Your task to perform on an android device: Play the last video I watched on Youtube Image 0: 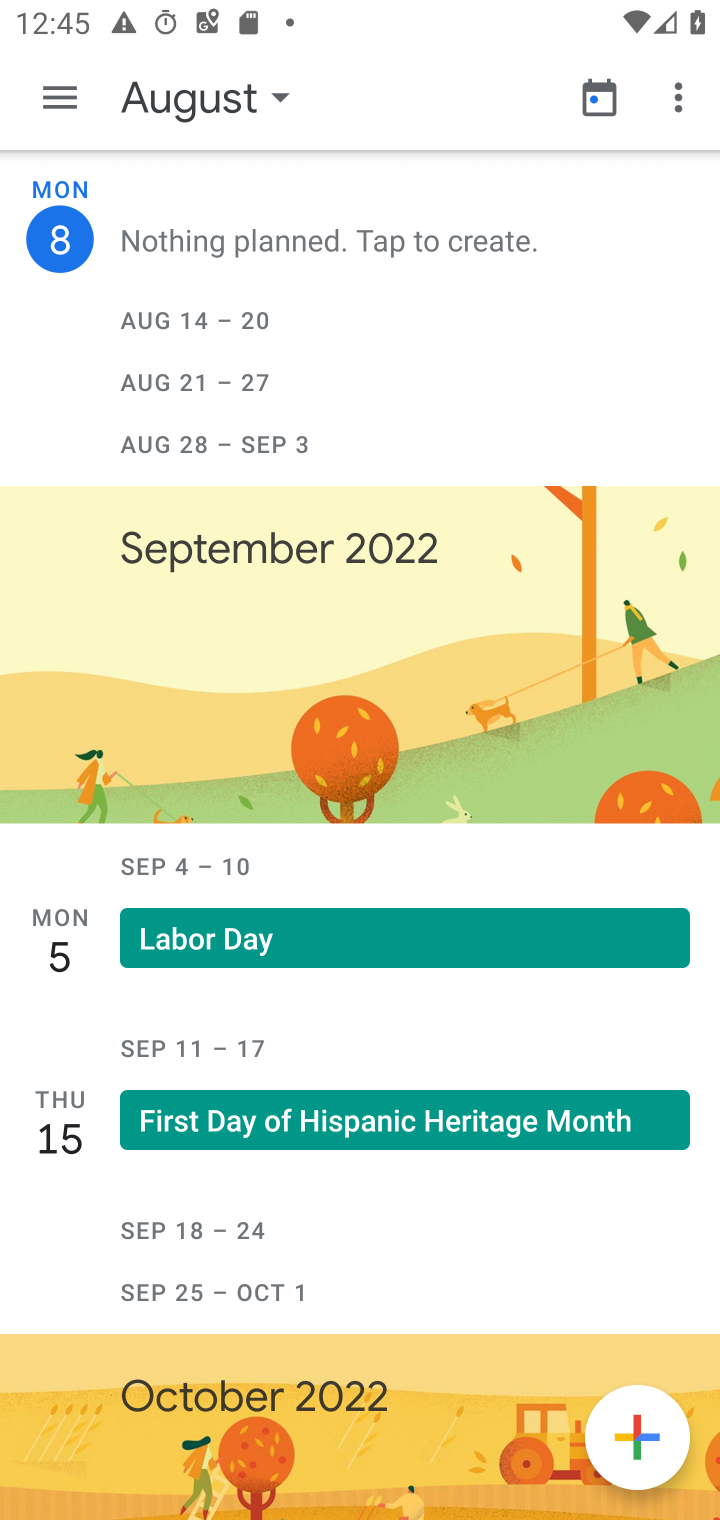
Step 0: press home button
Your task to perform on an android device: Play the last video I watched on Youtube Image 1: 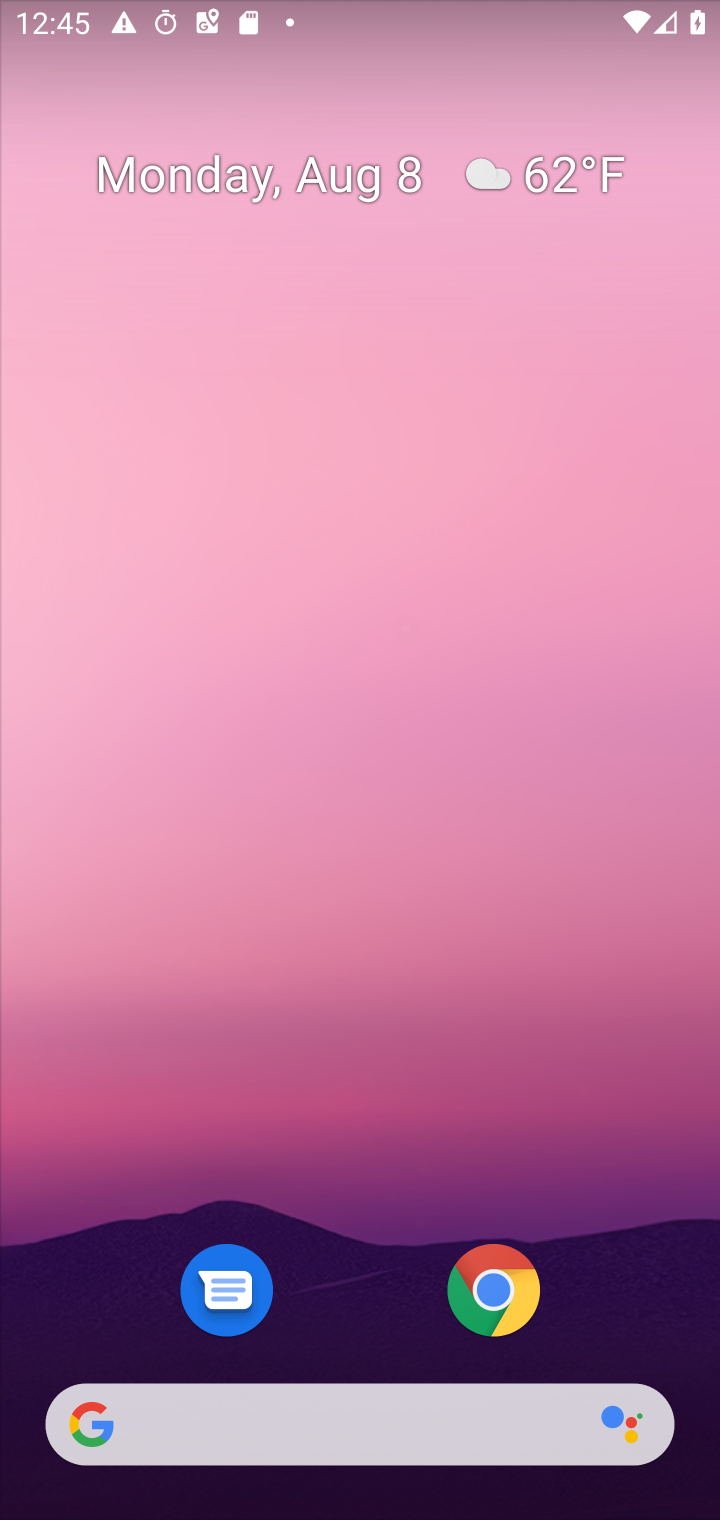
Step 1: drag from (392, 882) to (458, 204)
Your task to perform on an android device: Play the last video I watched on Youtube Image 2: 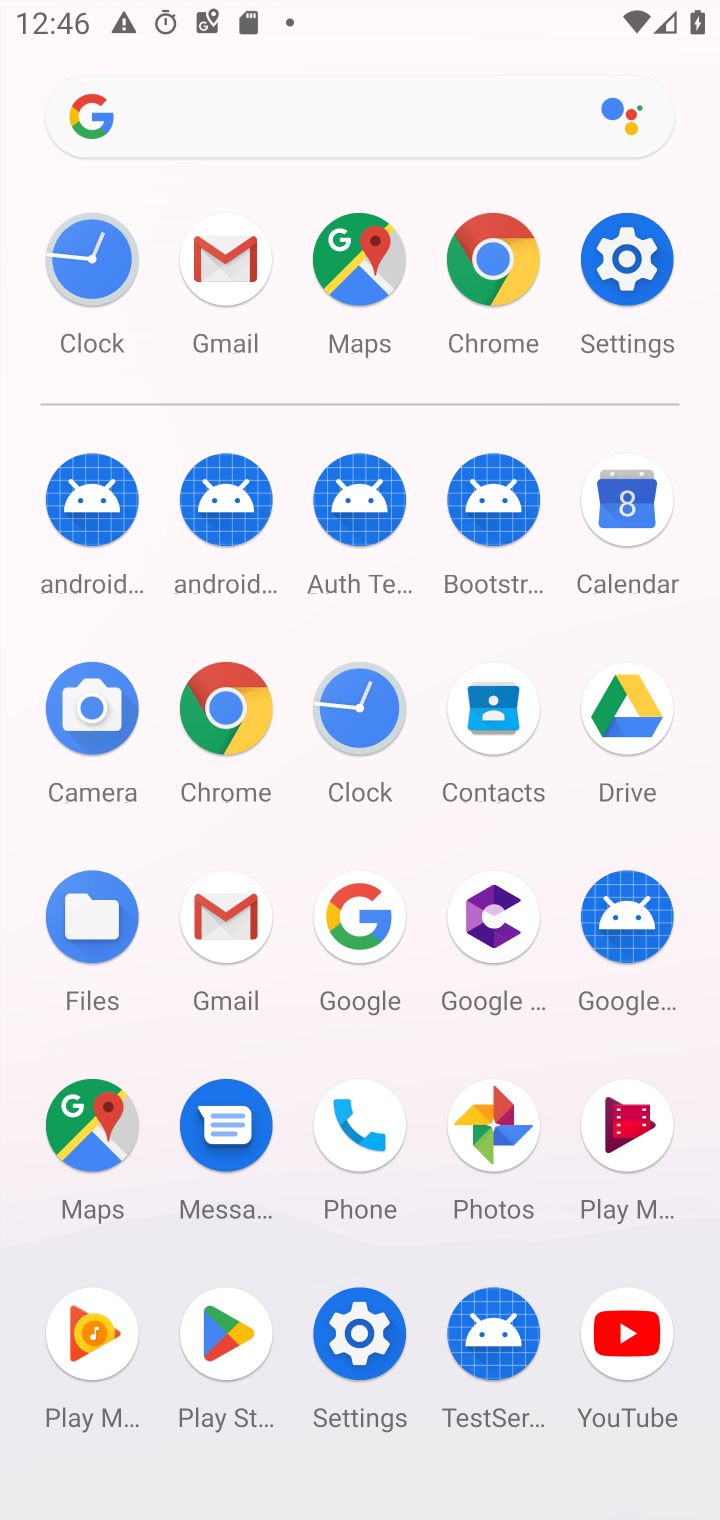
Step 2: click (615, 1334)
Your task to perform on an android device: Play the last video I watched on Youtube Image 3: 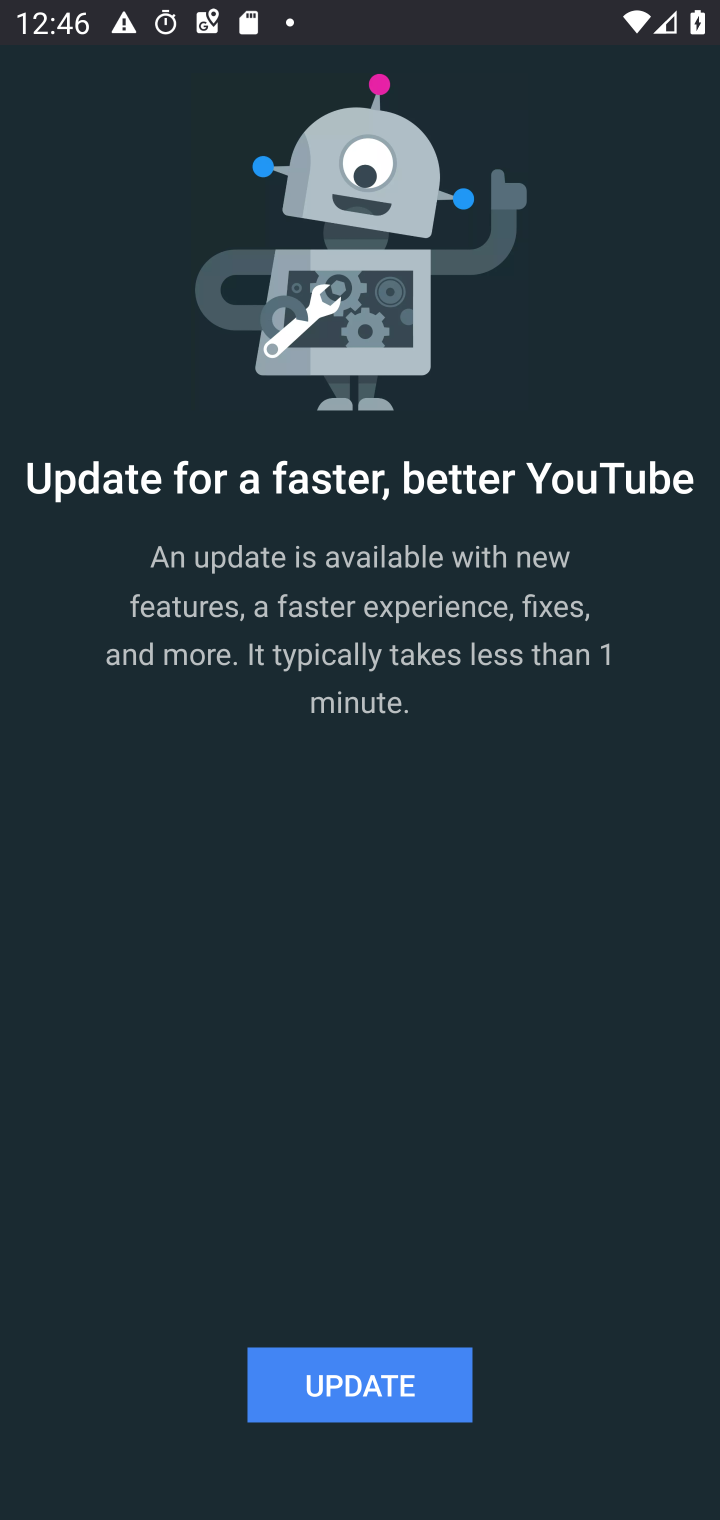
Step 3: click (407, 1353)
Your task to perform on an android device: Play the last video I watched on Youtube Image 4: 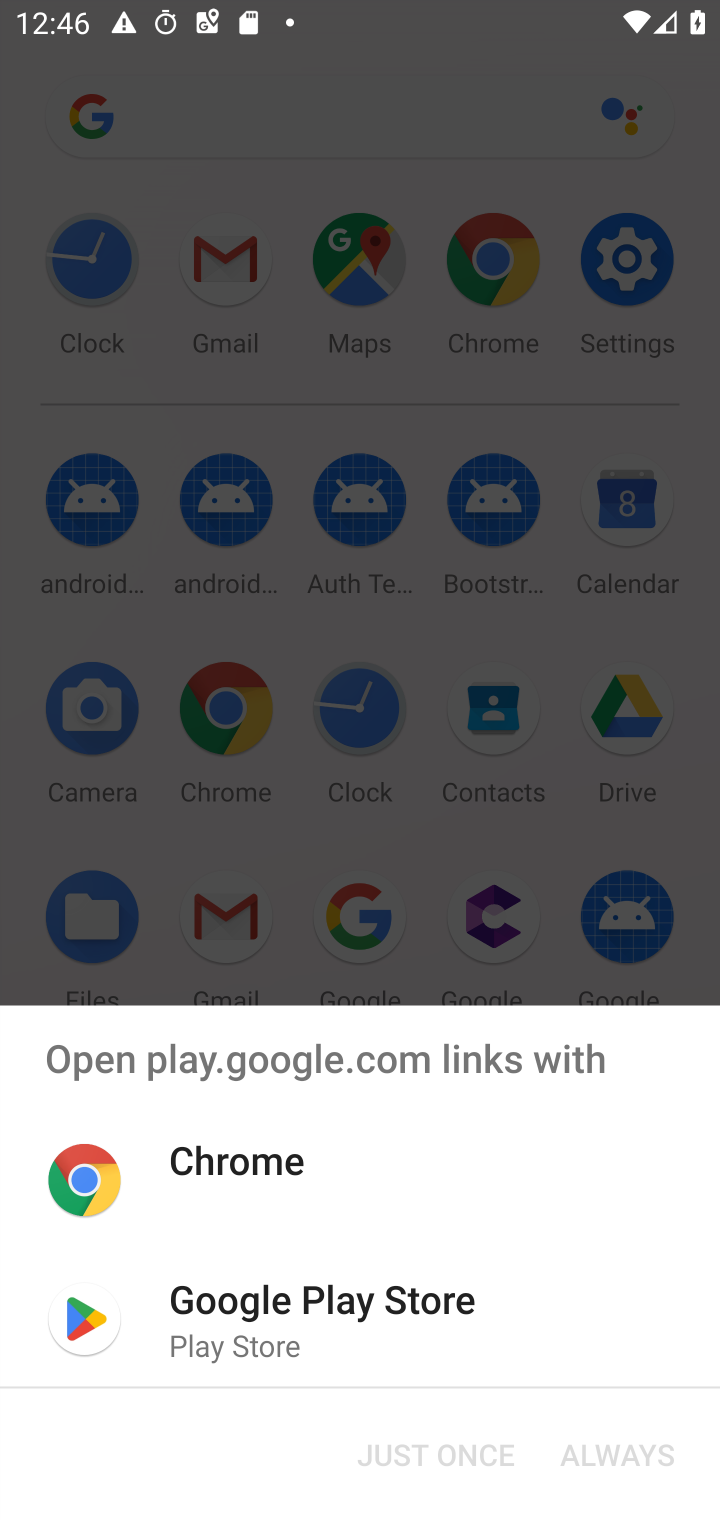
Step 4: click (370, 1290)
Your task to perform on an android device: Play the last video I watched on Youtube Image 5: 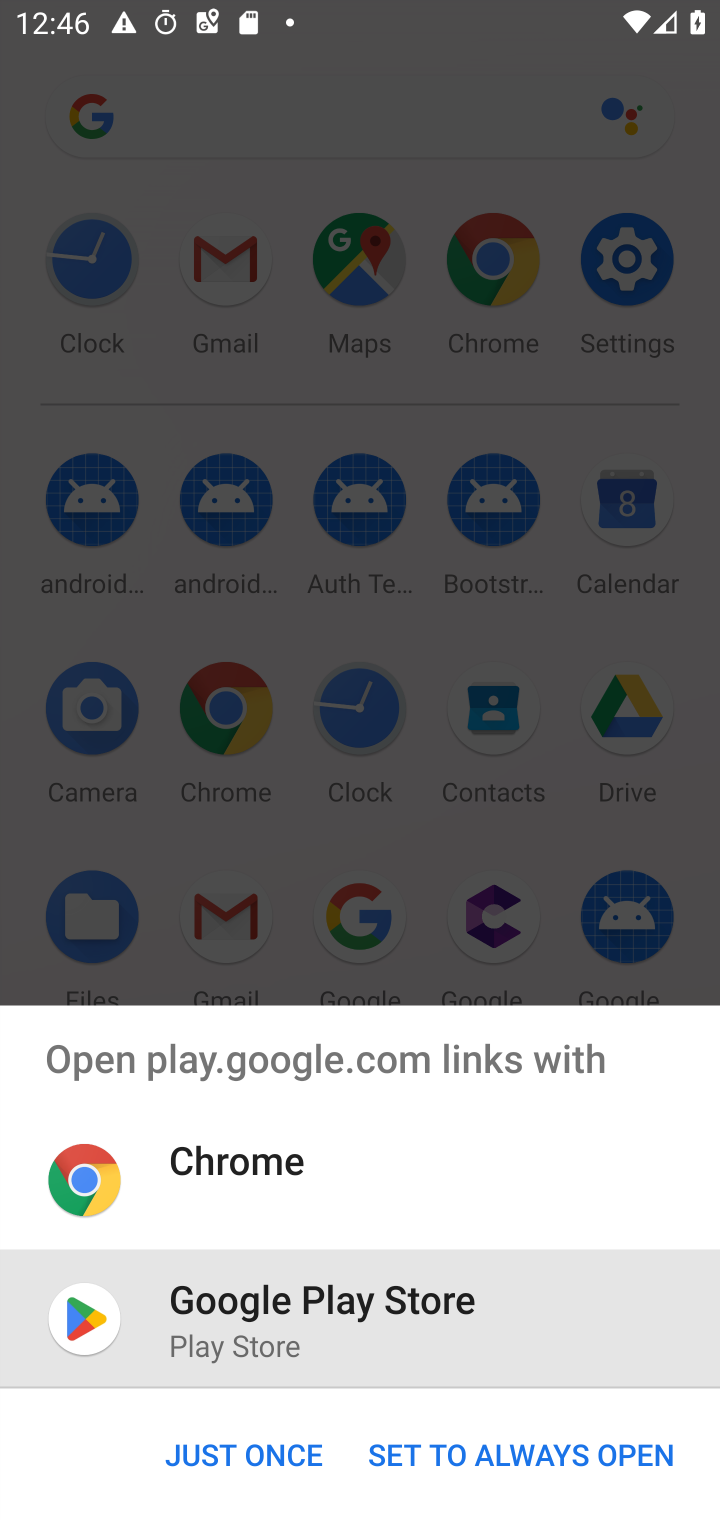
Step 5: click (257, 1459)
Your task to perform on an android device: Play the last video I watched on Youtube Image 6: 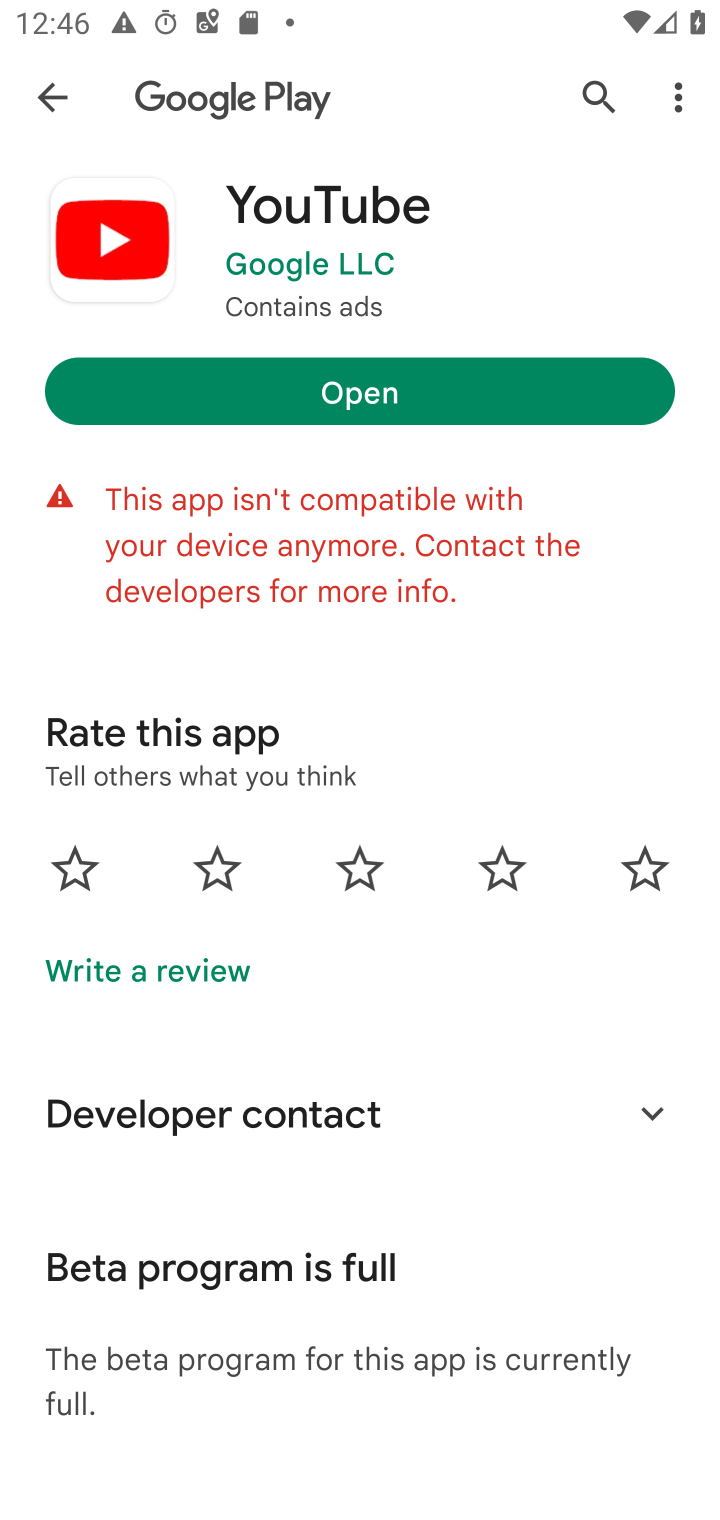
Step 6: click (397, 394)
Your task to perform on an android device: Play the last video I watched on Youtube Image 7: 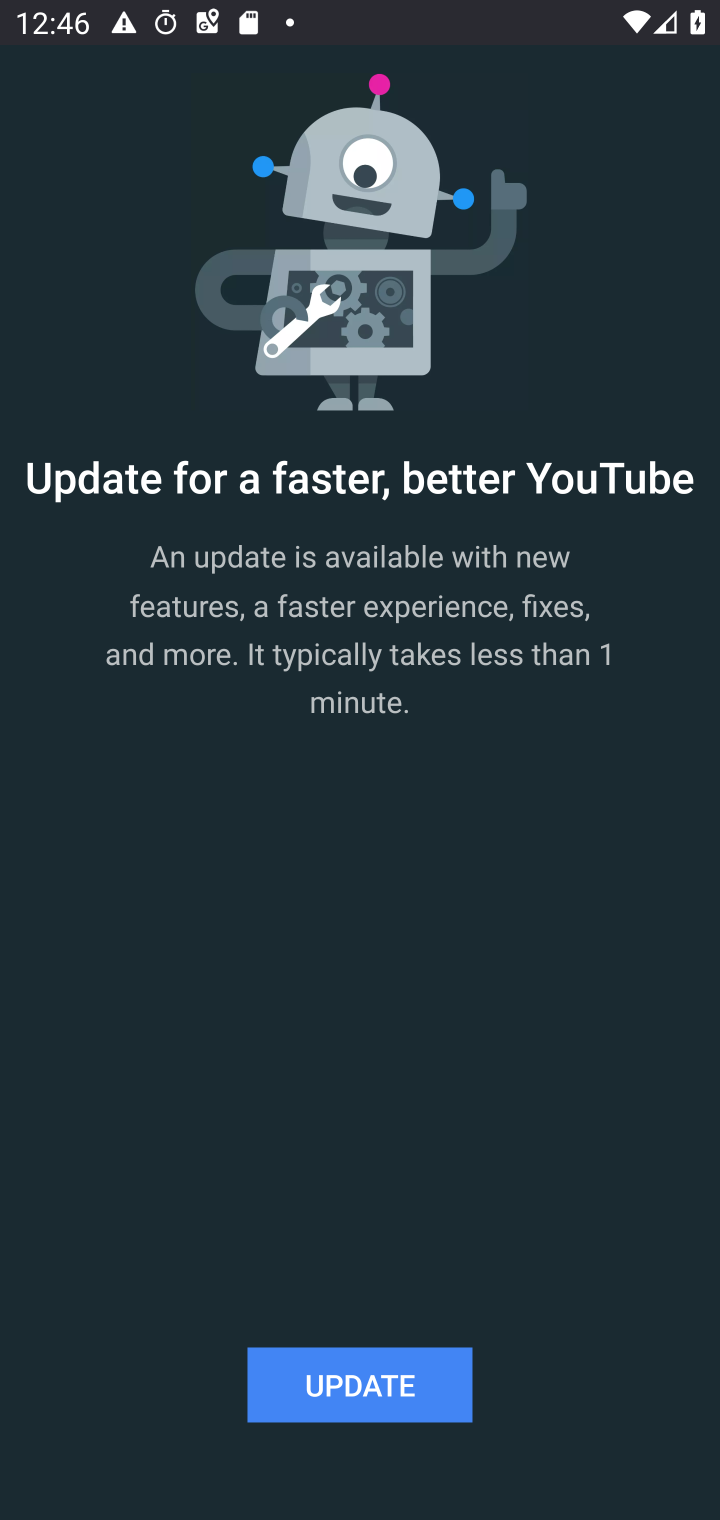
Step 7: task complete